Your task to perform on an android device: delete browsing data in the chrome app Image 0: 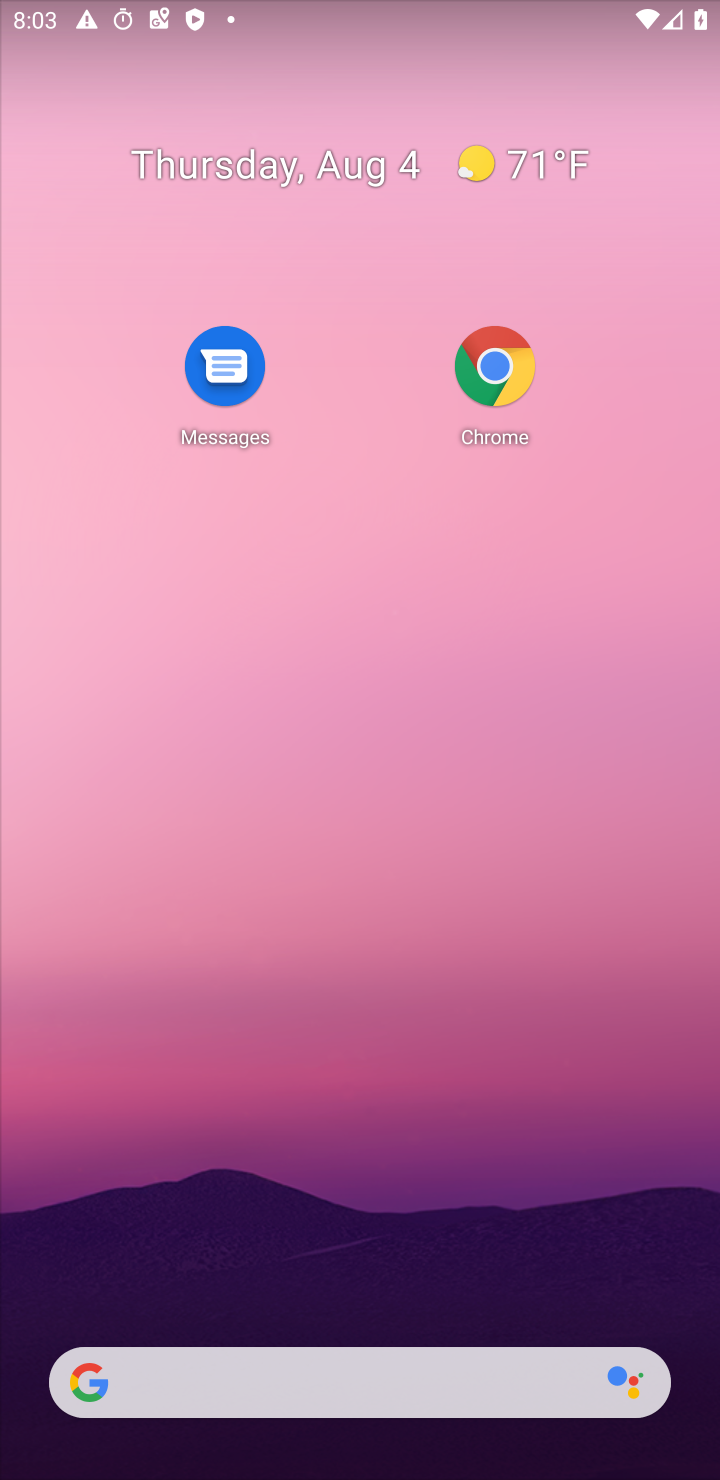
Step 0: press home button
Your task to perform on an android device: delete browsing data in the chrome app Image 1: 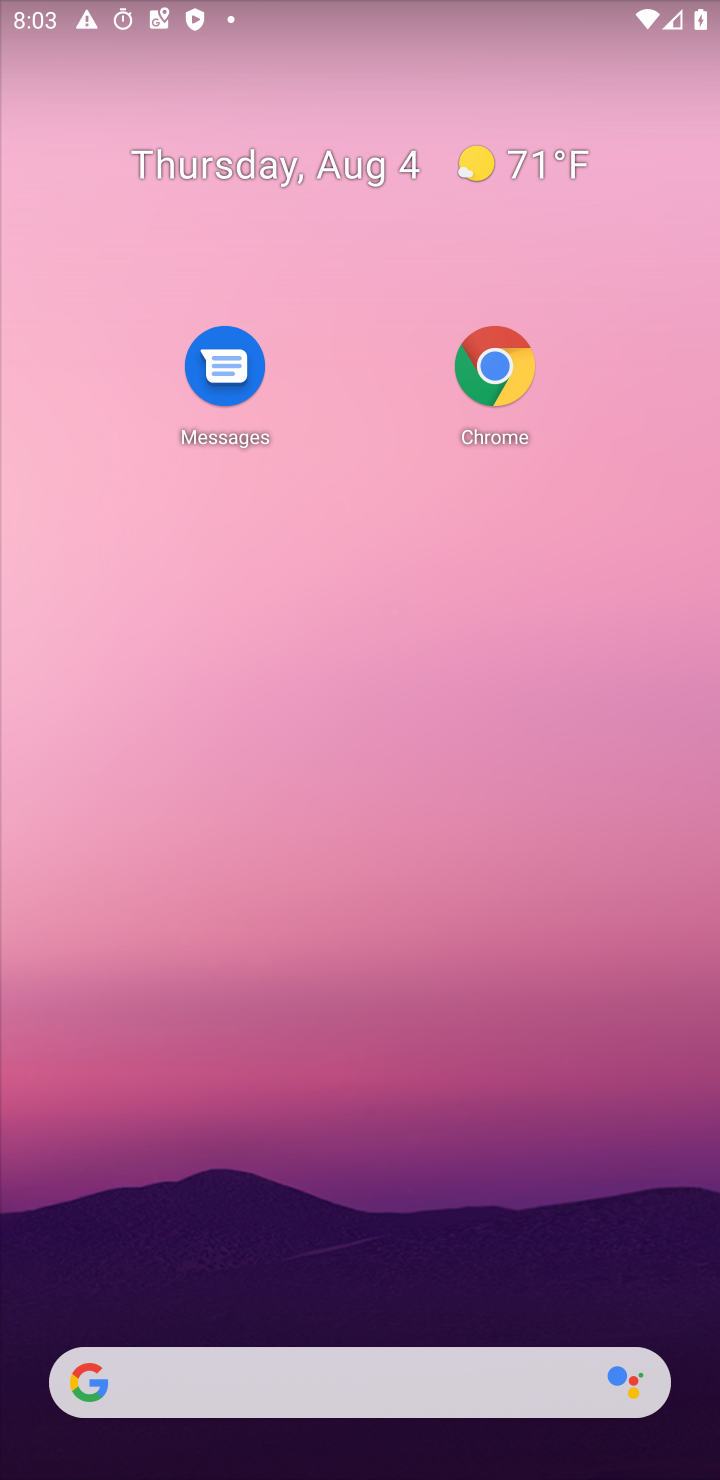
Step 1: drag from (368, 1294) to (272, 180)
Your task to perform on an android device: delete browsing data in the chrome app Image 2: 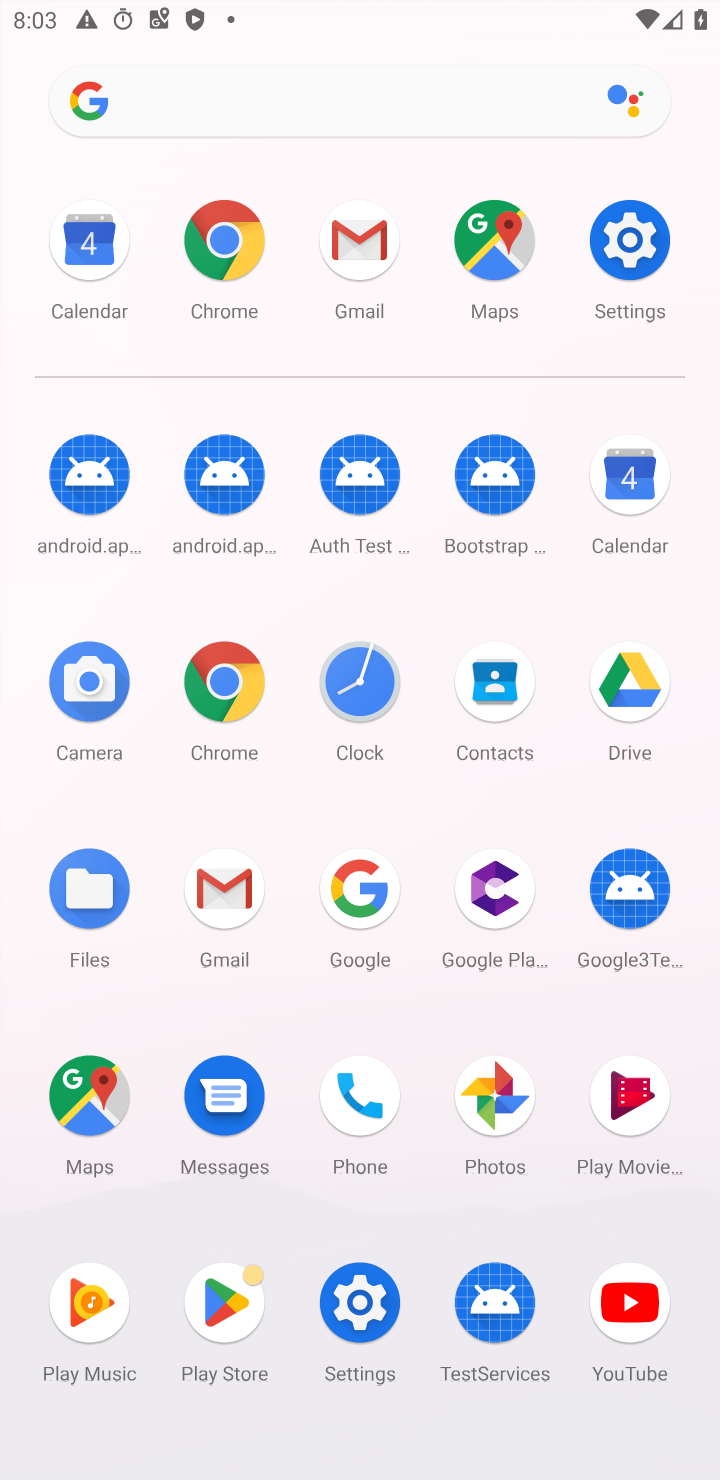
Step 2: click (205, 253)
Your task to perform on an android device: delete browsing data in the chrome app Image 3: 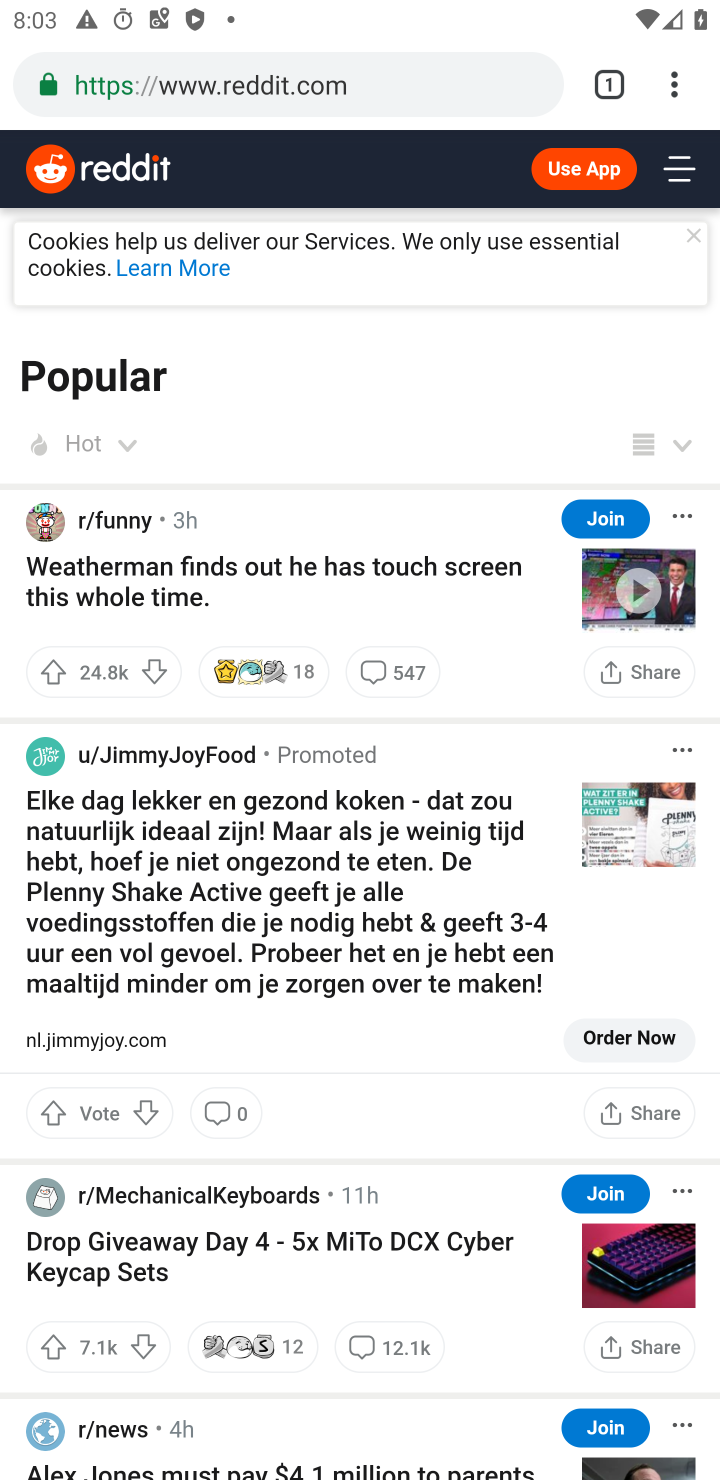
Step 3: click (667, 99)
Your task to perform on an android device: delete browsing data in the chrome app Image 4: 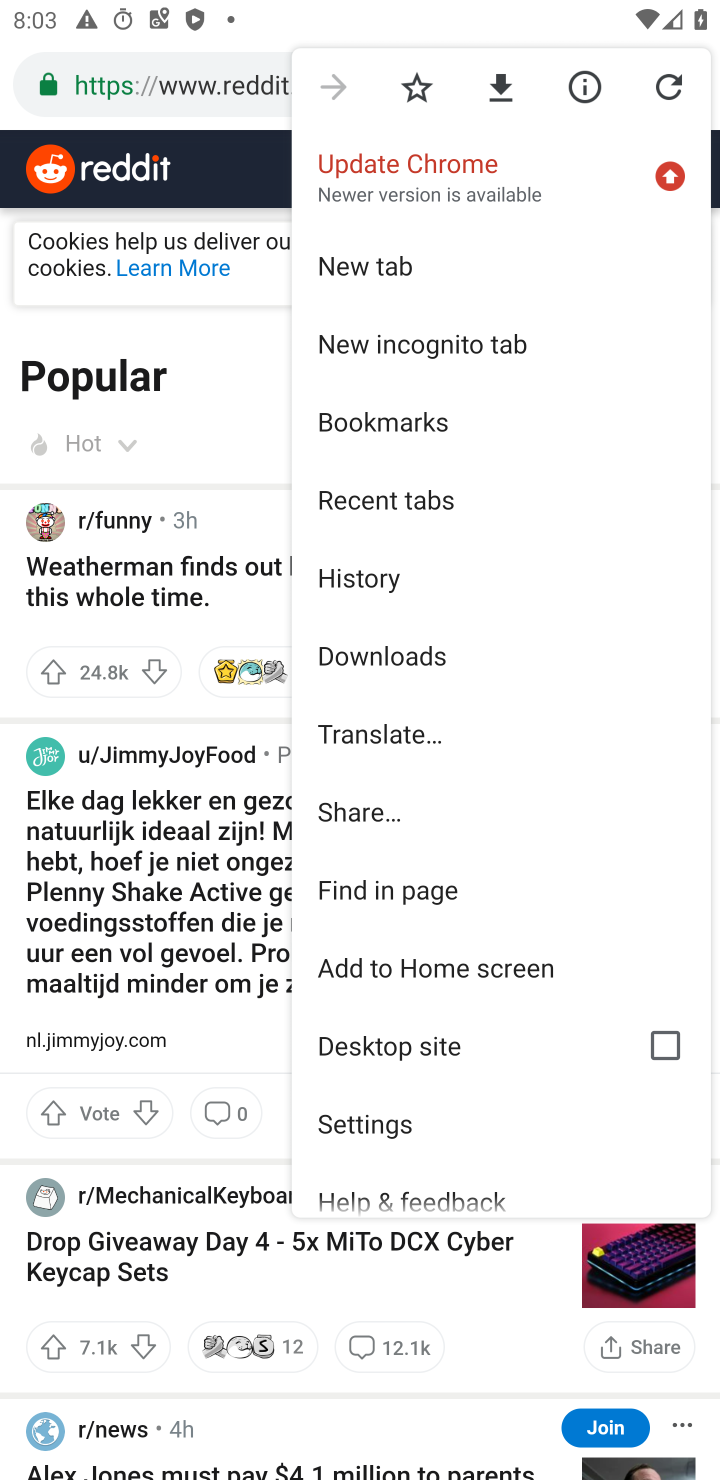
Step 4: click (404, 582)
Your task to perform on an android device: delete browsing data in the chrome app Image 5: 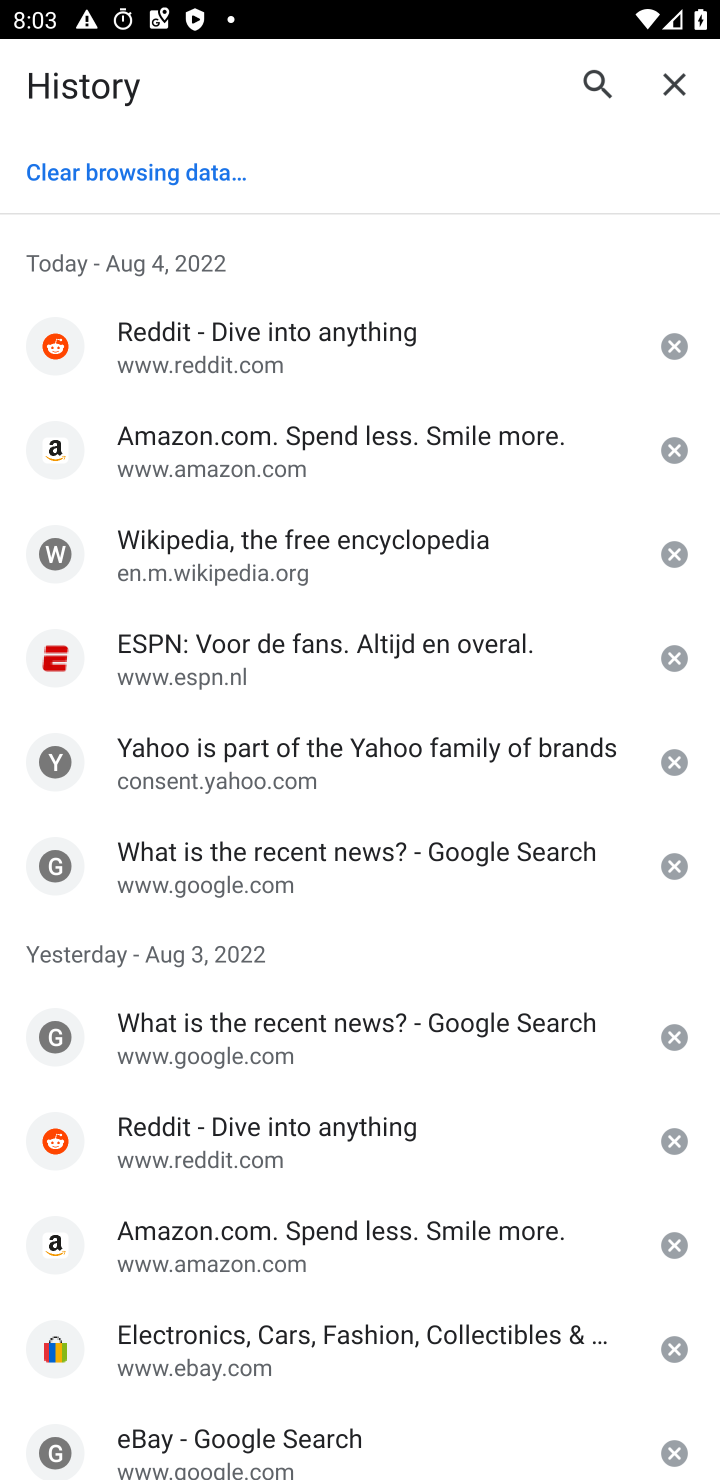
Step 5: click (110, 185)
Your task to perform on an android device: delete browsing data in the chrome app Image 6: 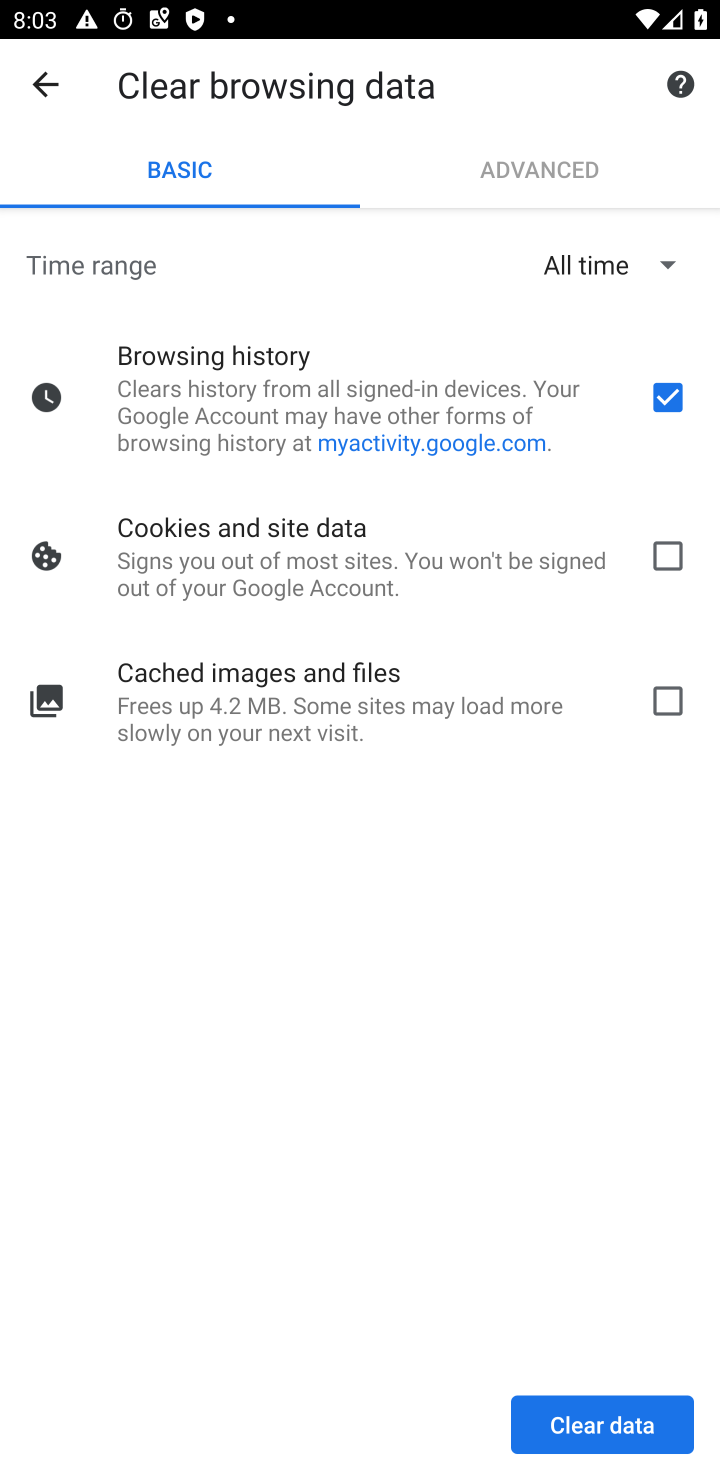
Step 6: click (612, 1422)
Your task to perform on an android device: delete browsing data in the chrome app Image 7: 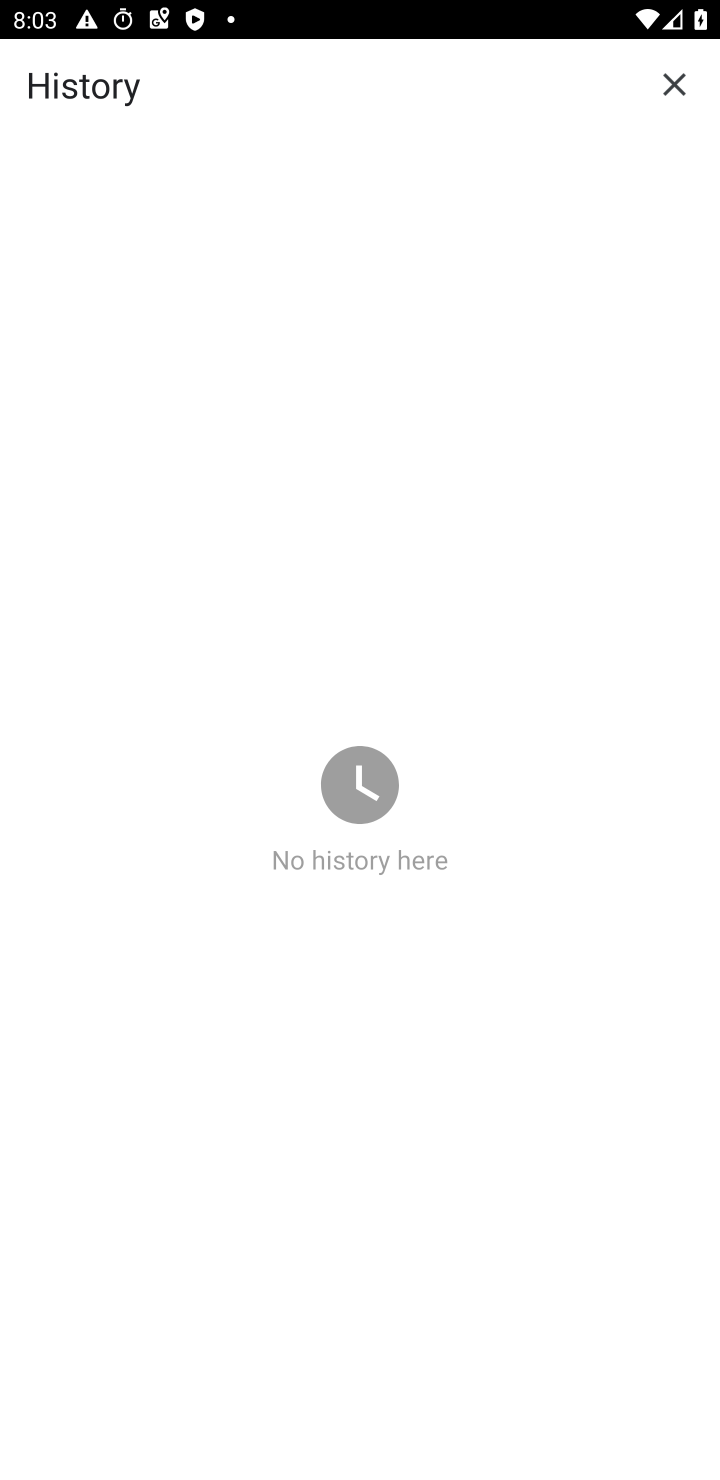
Step 7: task complete